Your task to perform on an android device: find photos in the google photos app Image 0: 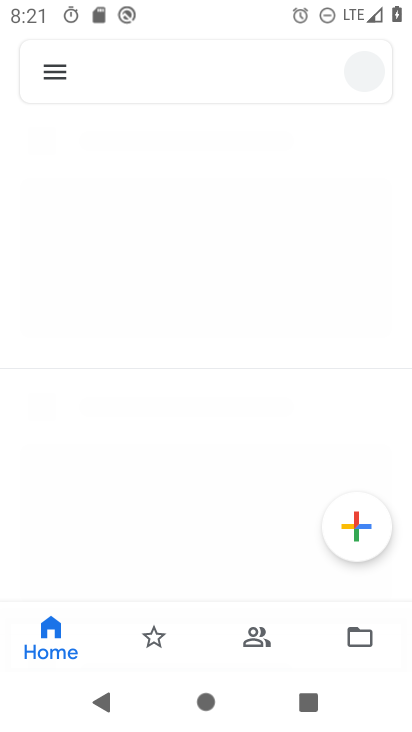
Step 0: drag from (399, 610) to (359, 81)
Your task to perform on an android device: find photos in the google photos app Image 1: 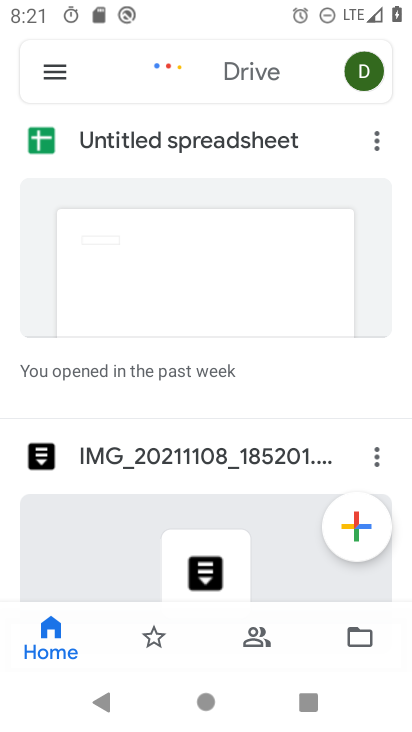
Step 1: press home button
Your task to perform on an android device: find photos in the google photos app Image 2: 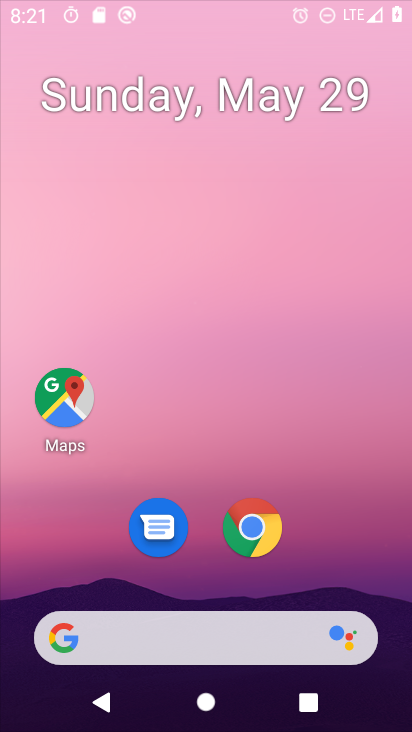
Step 2: drag from (369, 634) to (355, 38)
Your task to perform on an android device: find photos in the google photos app Image 3: 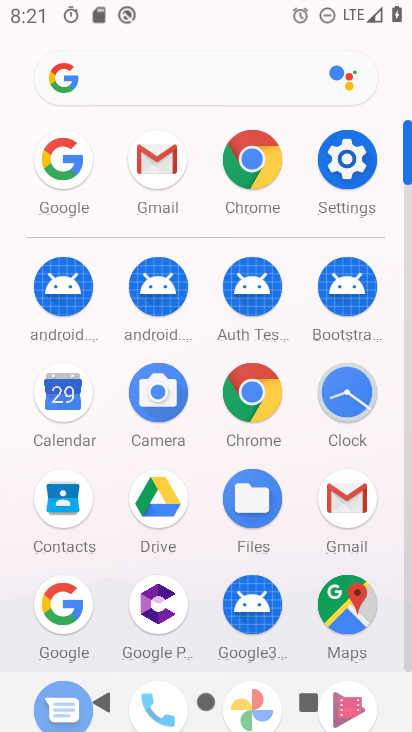
Step 3: drag from (284, 631) to (268, 124)
Your task to perform on an android device: find photos in the google photos app Image 4: 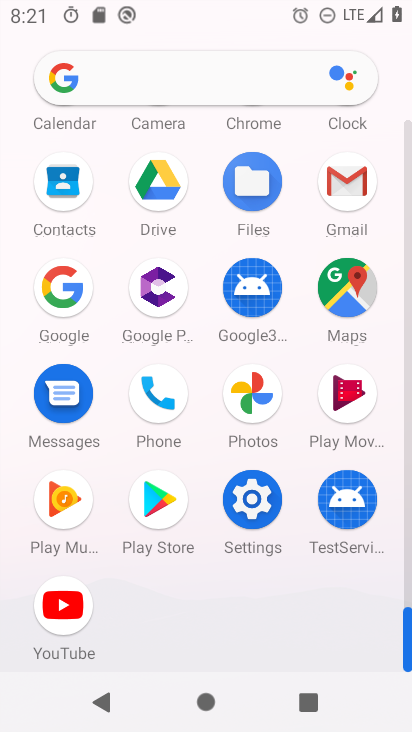
Step 4: click (240, 385)
Your task to perform on an android device: find photos in the google photos app Image 5: 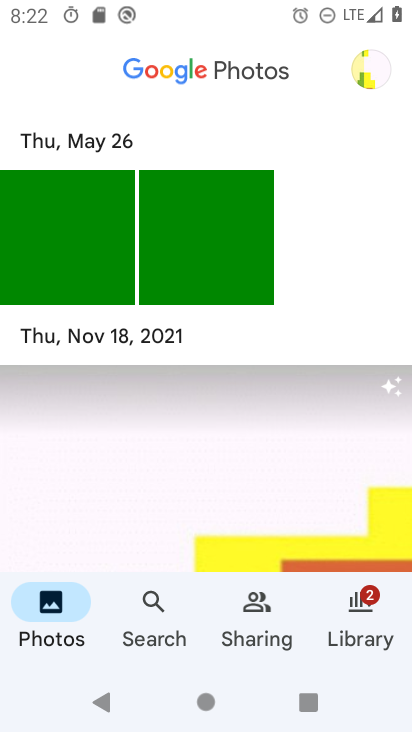
Step 5: task complete